Your task to perform on an android device: Open Google Chrome and click the shortcut for Amazon.com Image 0: 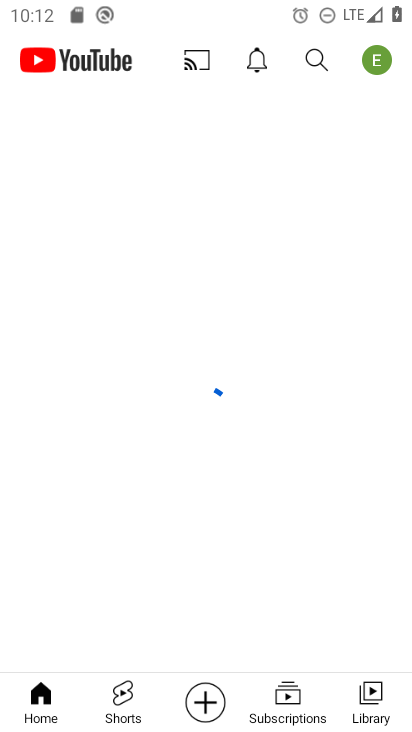
Step 0: press home button
Your task to perform on an android device: Open Google Chrome and click the shortcut for Amazon.com Image 1: 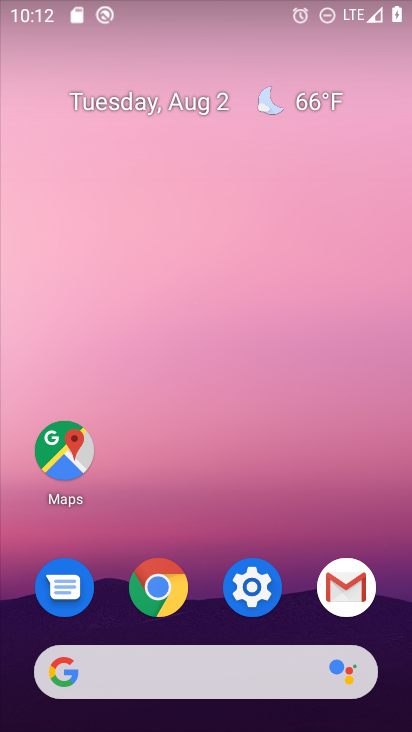
Step 1: drag from (257, 690) to (62, 118)
Your task to perform on an android device: Open Google Chrome and click the shortcut for Amazon.com Image 2: 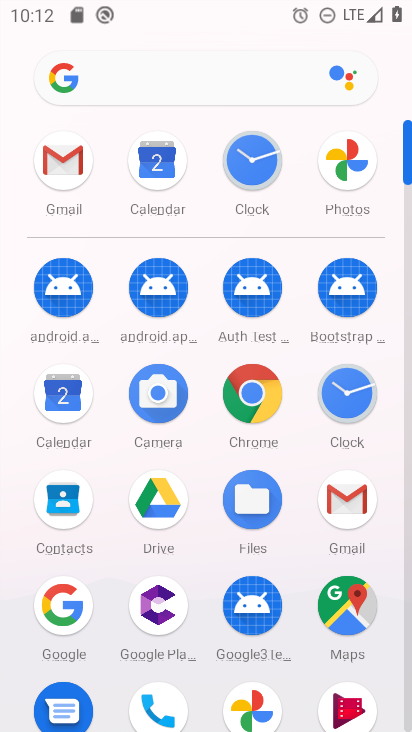
Step 2: click (244, 397)
Your task to perform on an android device: Open Google Chrome and click the shortcut for Amazon.com Image 3: 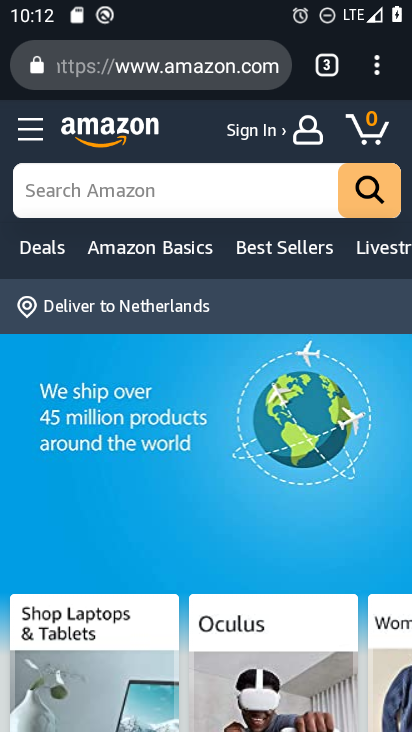
Step 3: click (371, 61)
Your task to perform on an android device: Open Google Chrome and click the shortcut for Amazon.com Image 4: 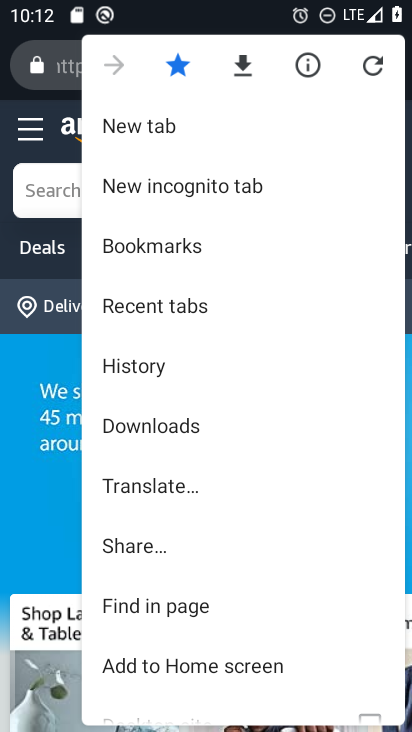
Step 4: click (147, 665)
Your task to perform on an android device: Open Google Chrome and click the shortcut for Amazon.com Image 5: 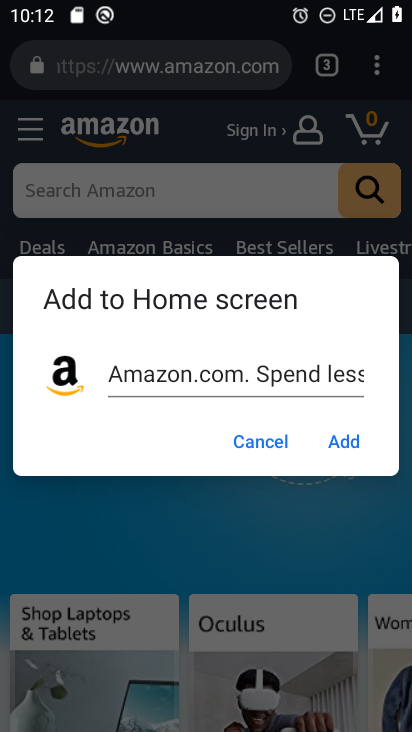
Step 5: click (347, 429)
Your task to perform on an android device: Open Google Chrome and click the shortcut for Amazon.com Image 6: 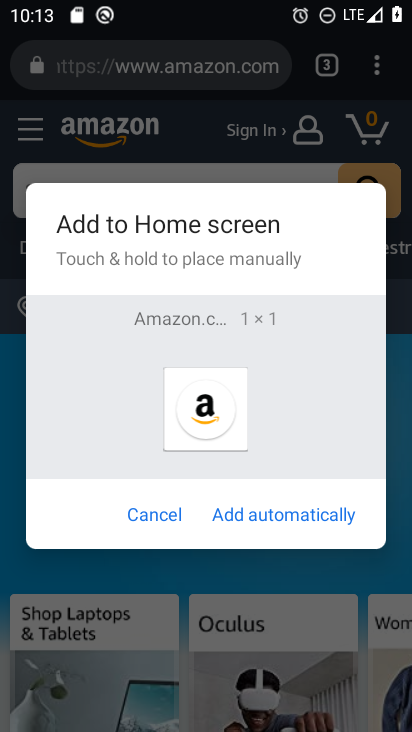
Step 6: click (289, 521)
Your task to perform on an android device: Open Google Chrome and click the shortcut for Amazon.com Image 7: 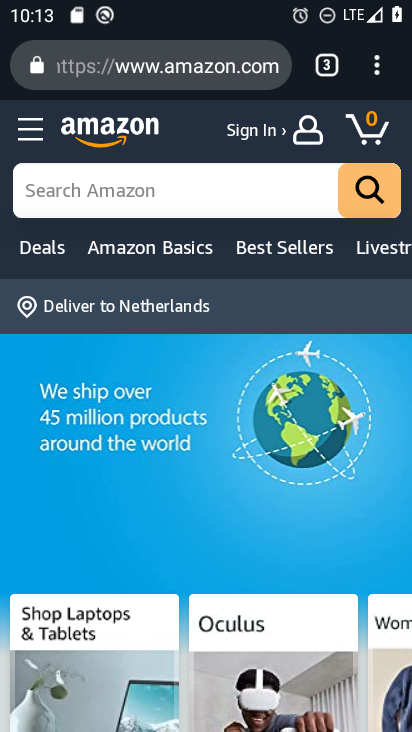
Step 7: task complete